Your task to perform on an android device: Open Chrome and go to the settings page Image 0: 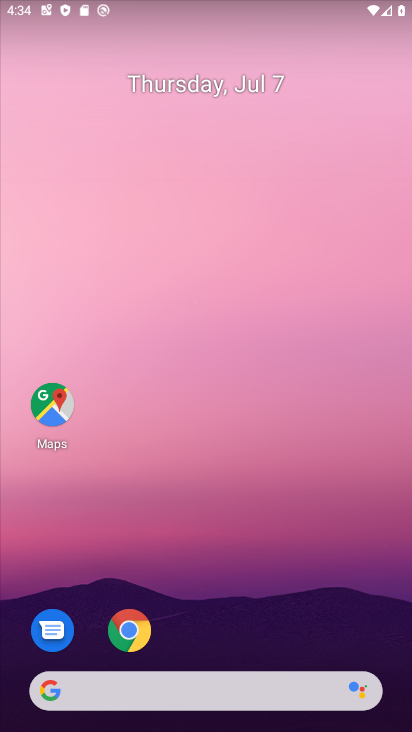
Step 0: click (129, 637)
Your task to perform on an android device: Open Chrome and go to the settings page Image 1: 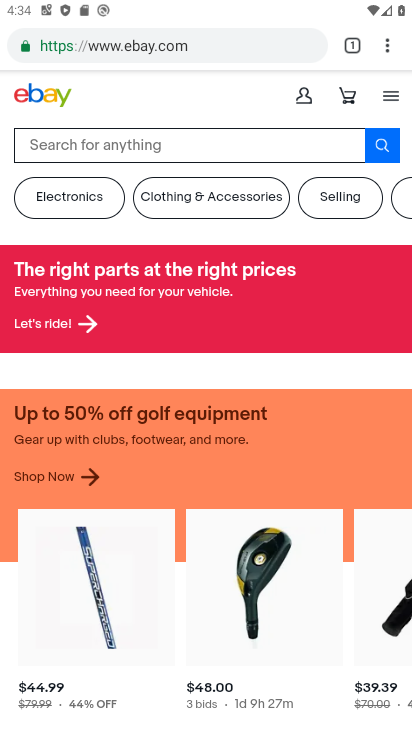
Step 1: click (385, 40)
Your task to perform on an android device: Open Chrome and go to the settings page Image 2: 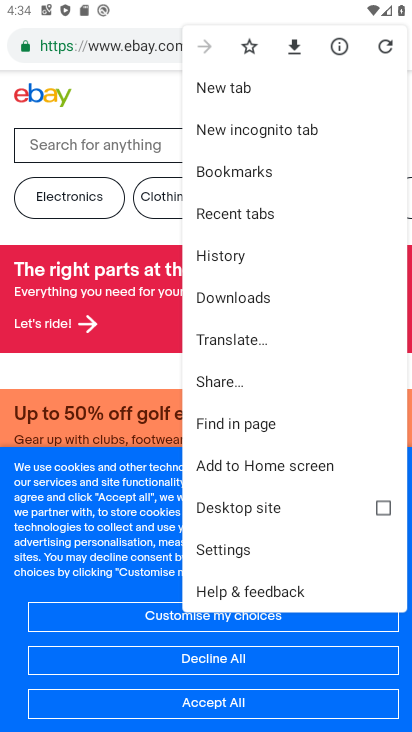
Step 2: click (225, 541)
Your task to perform on an android device: Open Chrome and go to the settings page Image 3: 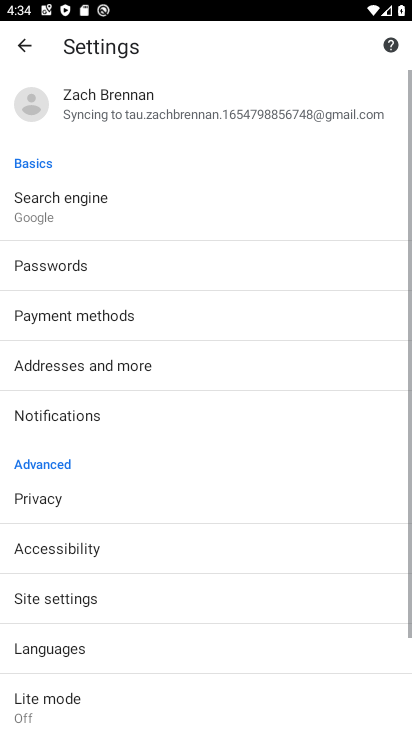
Step 3: task complete